Your task to perform on an android device: turn on showing notifications on the lock screen Image 0: 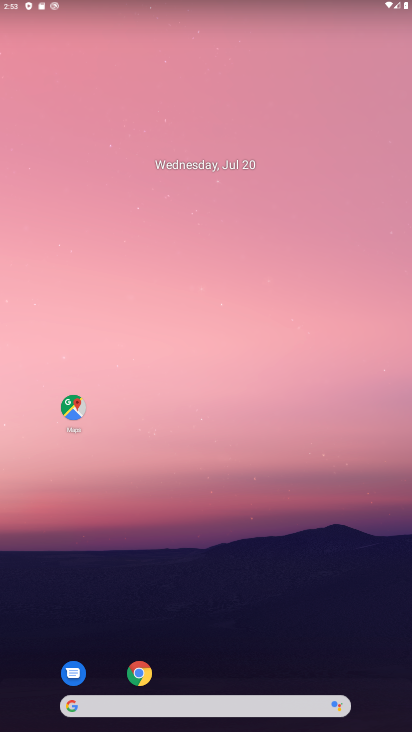
Step 0: click (133, 173)
Your task to perform on an android device: turn on showing notifications on the lock screen Image 1: 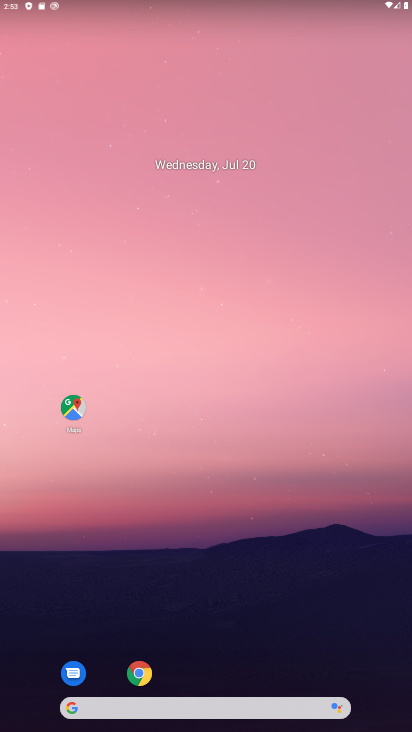
Step 1: drag from (188, 646) to (79, 331)
Your task to perform on an android device: turn on showing notifications on the lock screen Image 2: 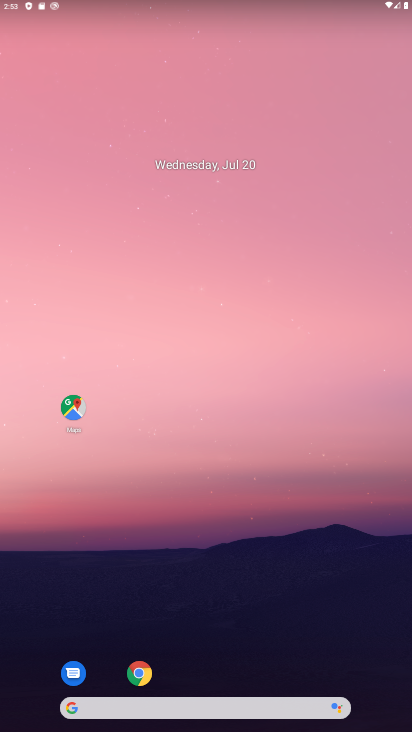
Step 2: drag from (234, 601) to (217, 197)
Your task to perform on an android device: turn on showing notifications on the lock screen Image 3: 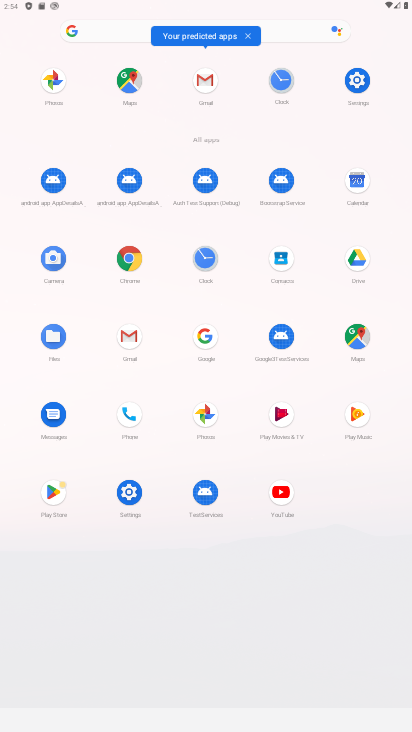
Step 3: click (357, 81)
Your task to perform on an android device: turn on showing notifications on the lock screen Image 4: 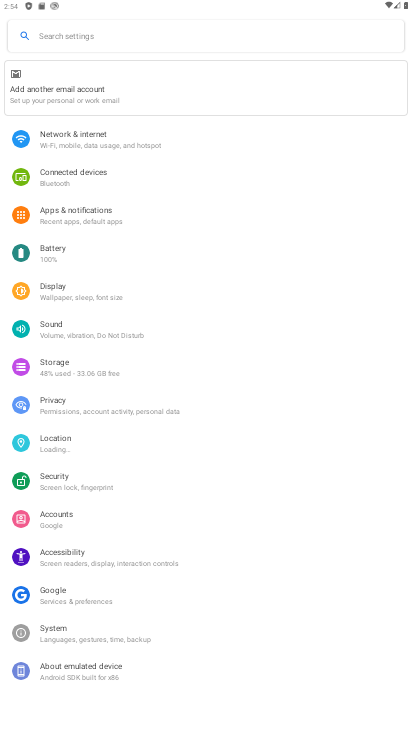
Step 4: click (79, 176)
Your task to perform on an android device: turn on showing notifications on the lock screen Image 5: 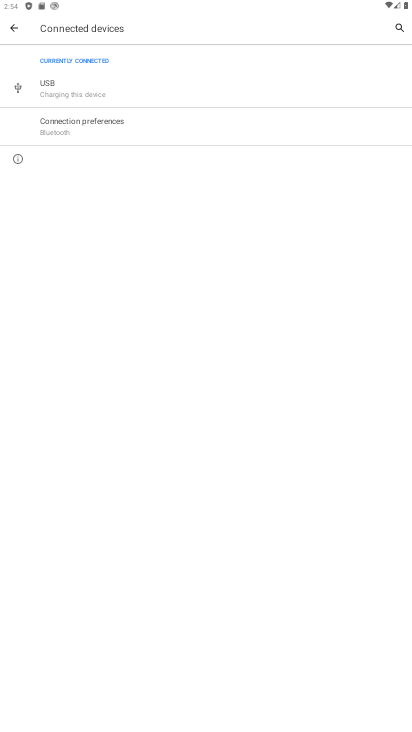
Step 5: click (14, 21)
Your task to perform on an android device: turn on showing notifications on the lock screen Image 6: 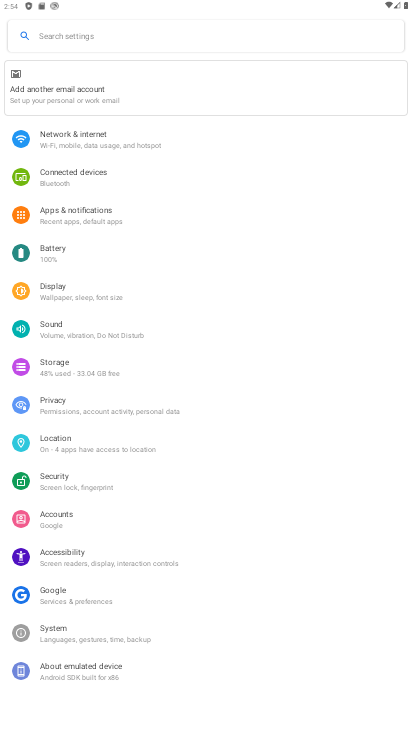
Step 6: click (84, 212)
Your task to perform on an android device: turn on showing notifications on the lock screen Image 7: 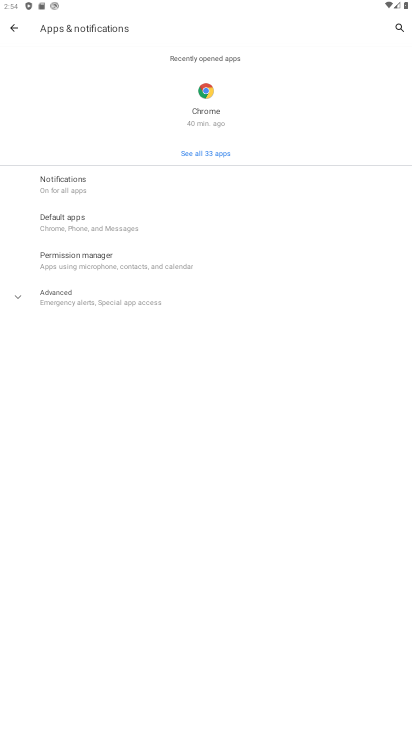
Step 7: click (92, 177)
Your task to perform on an android device: turn on showing notifications on the lock screen Image 8: 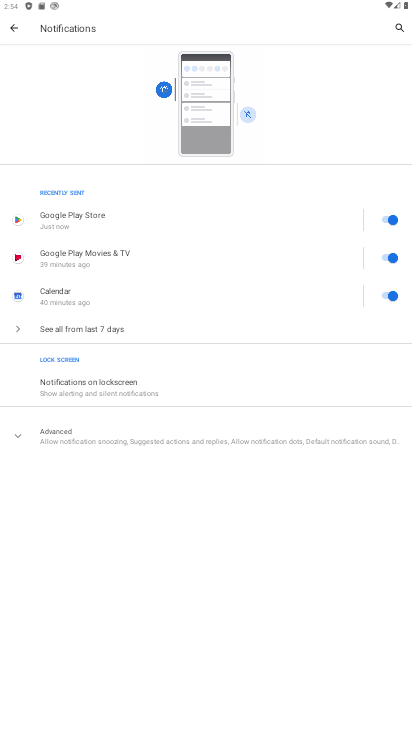
Step 8: click (123, 383)
Your task to perform on an android device: turn on showing notifications on the lock screen Image 9: 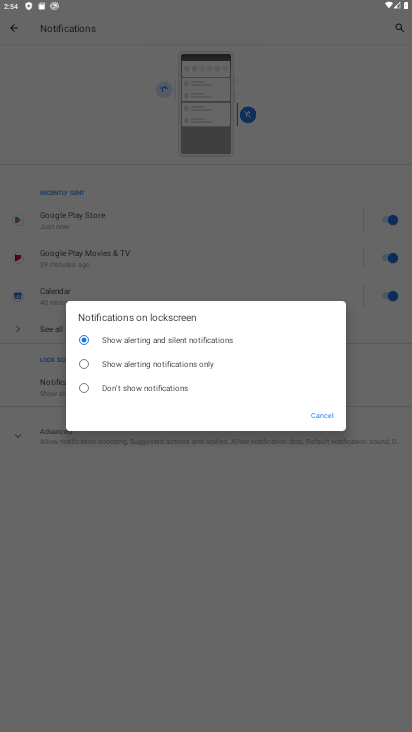
Step 9: task complete